Your task to perform on an android device: turn off smart reply in the gmail app Image 0: 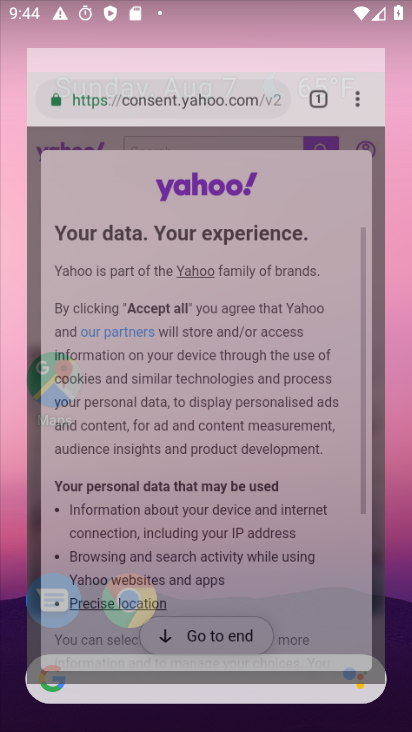
Step 0: drag from (215, 666) to (267, 205)
Your task to perform on an android device: turn off smart reply in the gmail app Image 1: 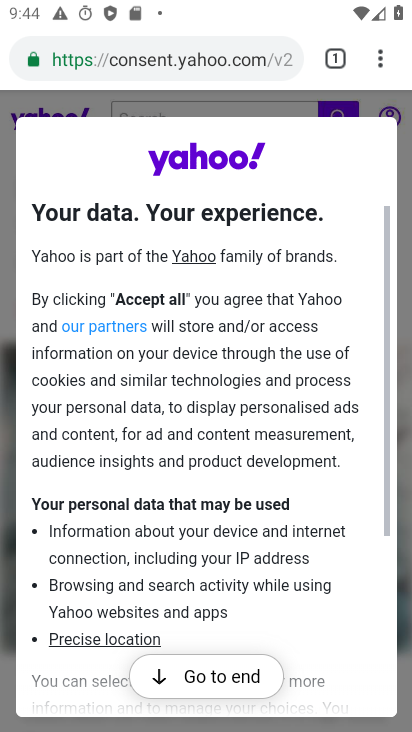
Step 1: press home button
Your task to perform on an android device: turn off smart reply in the gmail app Image 2: 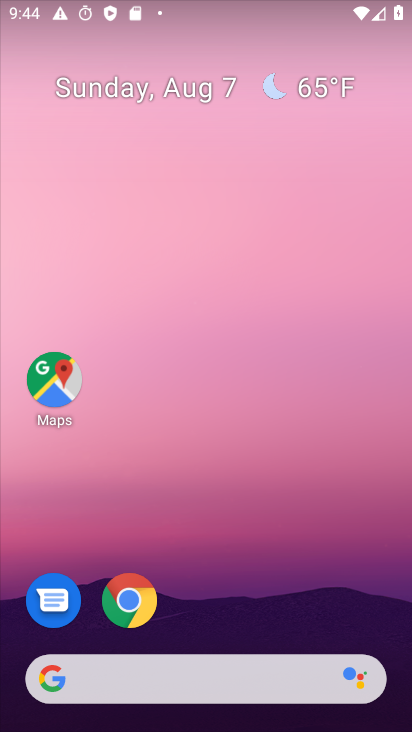
Step 2: drag from (223, 621) to (267, 237)
Your task to perform on an android device: turn off smart reply in the gmail app Image 3: 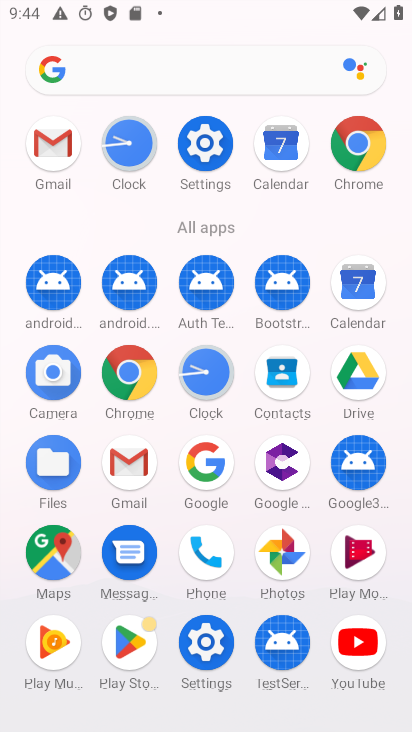
Step 3: click (120, 477)
Your task to perform on an android device: turn off smart reply in the gmail app Image 4: 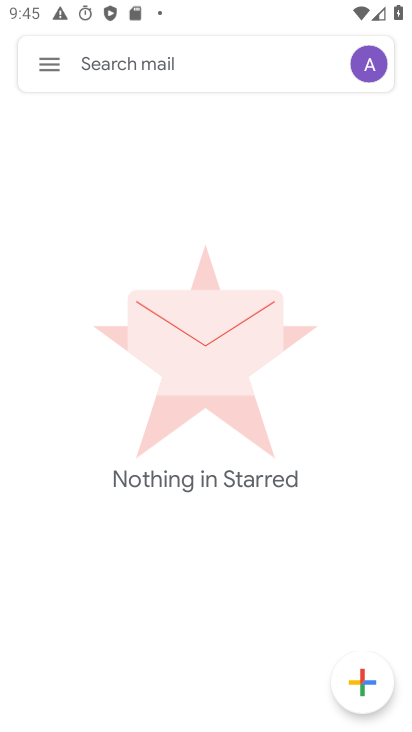
Step 4: click (40, 71)
Your task to perform on an android device: turn off smart reply in the gmail app Image 5: 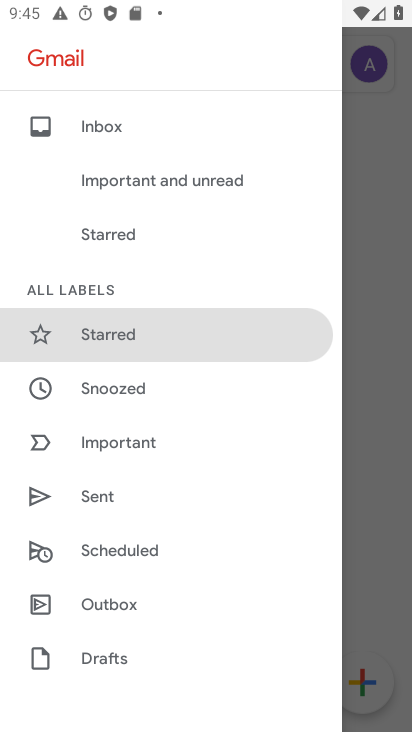
Step 5: drag from (175, 427) to (213, 158)
Your task to perform on an android device: turn off smart reply in the gmail app Image 6: 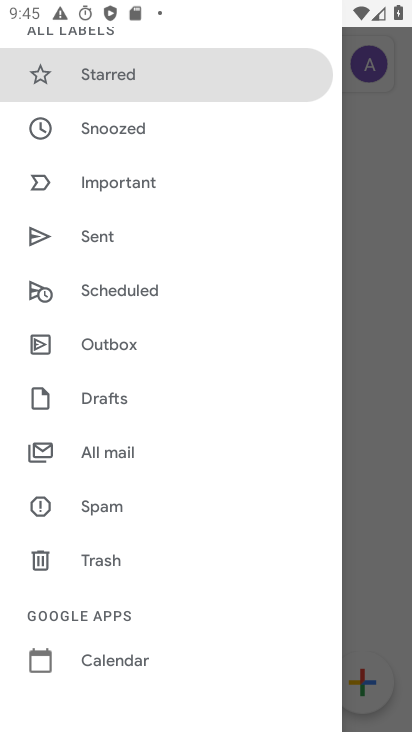
Step 6: drag from (158, 421) to (203, 82)
Your task to perform on an android device: turn off smart reply in the gmail app Image 7: 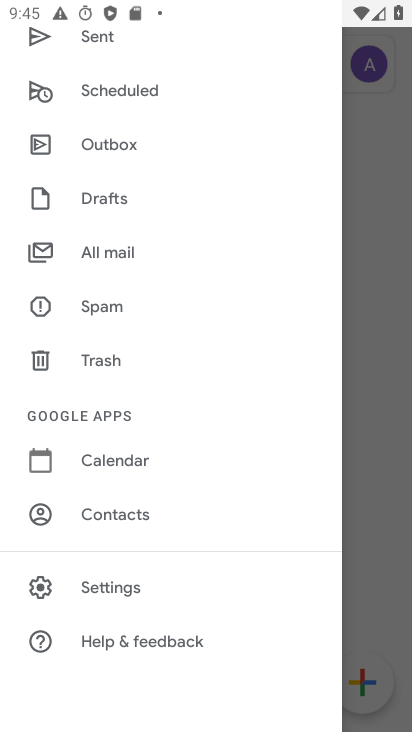
Step 7: click (102, 581)
Your task to perform on an android device: turn off smart reply in the gmail app Image 8: 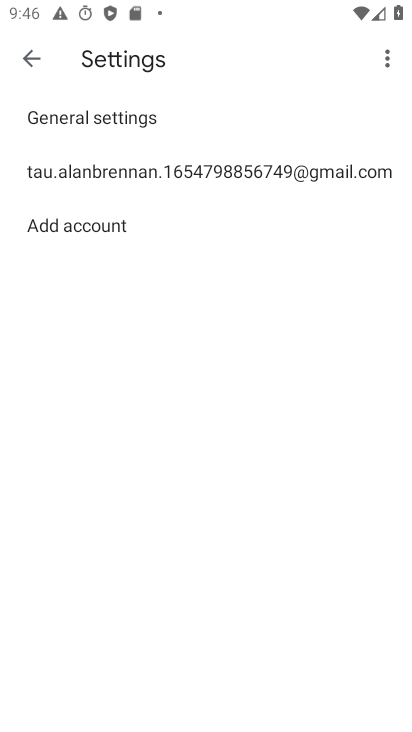
Step 8: click (119, 172)
Your task to perform on an android device: turn off smart reply in the gmail app Image 9: 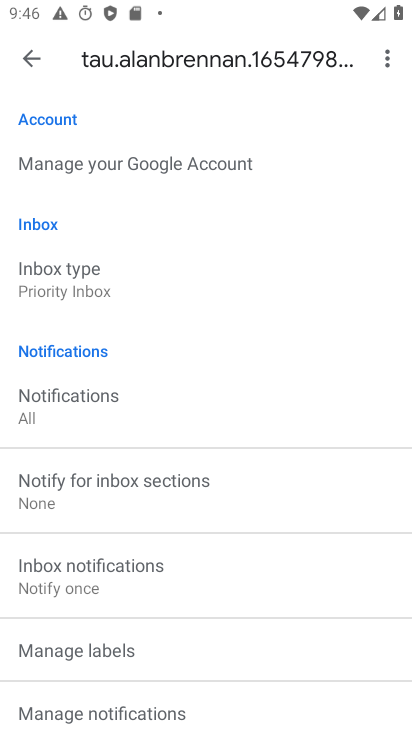
Step 9: drag from (150, 552) to (191, 115)
Your task to perform on an android device: turn off smart reply in the gmail app Image 10: 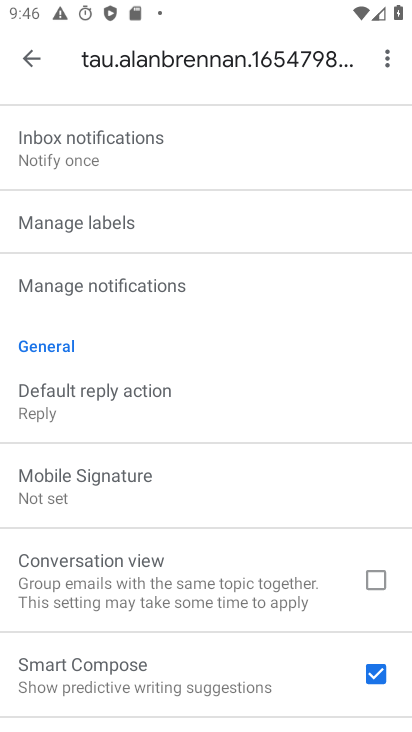
Step 10: drag from (180, 508) to (230, 227)
Your task to perform on an android device: turn off smart reply in the gmail app Image 11: 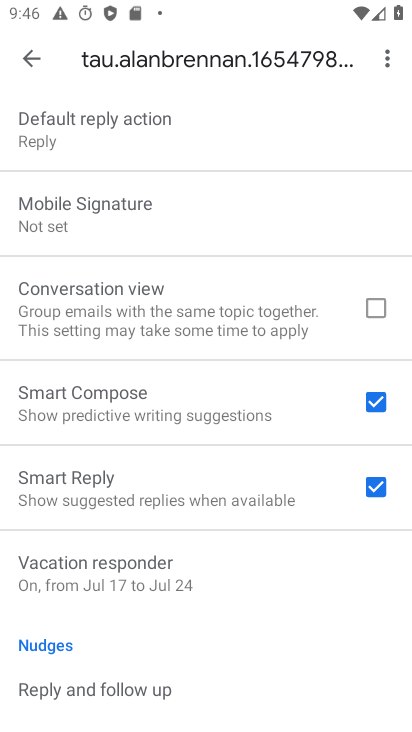
Step 11: click (372, 491)
Your task to perform on an android device: turn off smart reply in the gmail app Image 12: 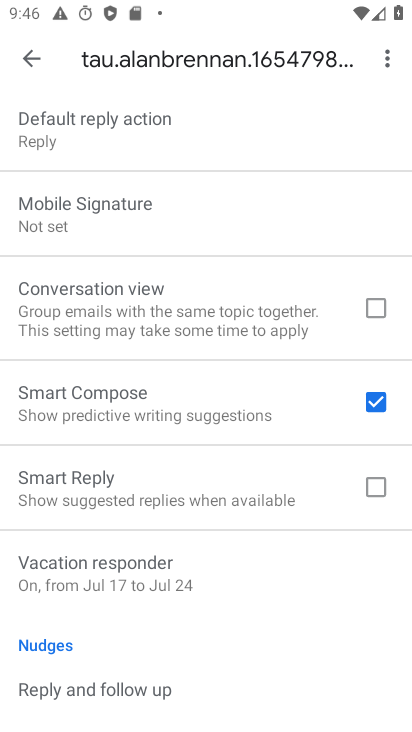
Step 12: task complete